Your task to perform on an android device: Go to Yahoo.com Image 0: 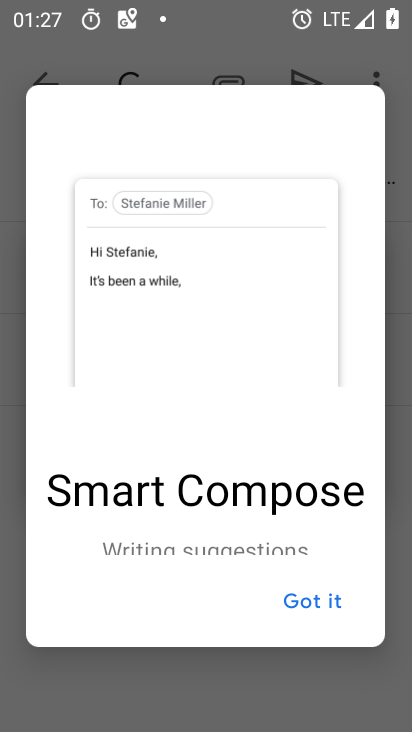
Step 0: press home button
Your task to perform on an android device: Go to Yahoo.com Image 1: 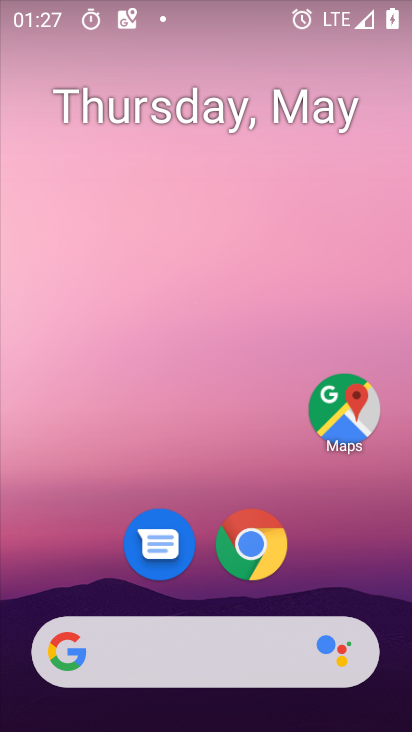
Step 1: drag from (368, 556) to (370, 149)
Your task to perform on an android device: Go to Yahoo.com Image 2: 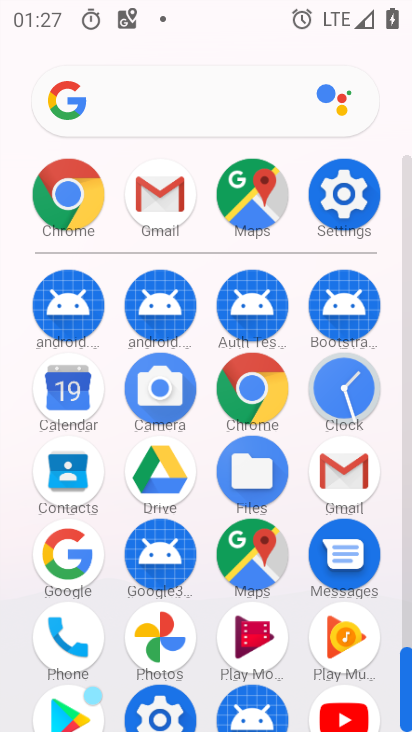
Step 2: click (273, 409)
Your task to perform on an android device: Go to Yahoo.com Image 3: 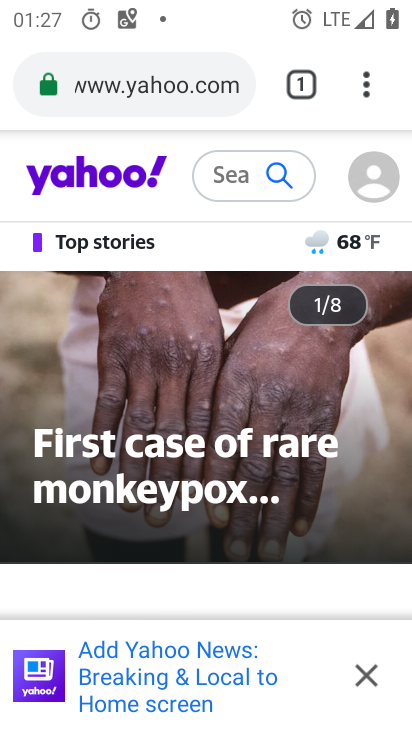
Step 3: task complete